Your task to perform on an android device: Open Amazon Image 0: 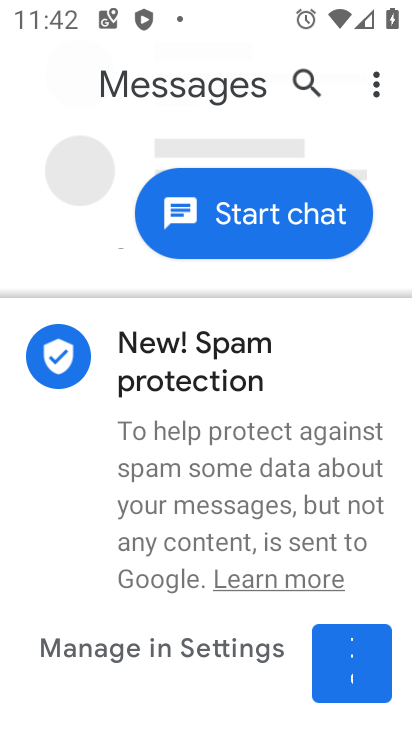
Step 0: press home button
Your task to perform on an android device: Open Amazon Image 1: 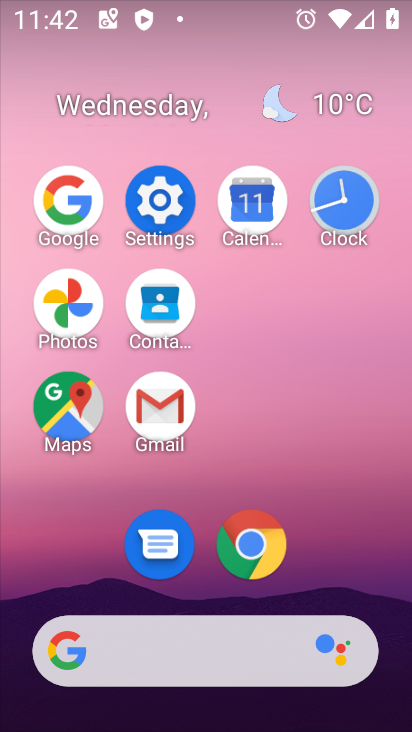
Step 1: click (251, 553)
Your task to perform on an android device: Open Amazon Image 2: 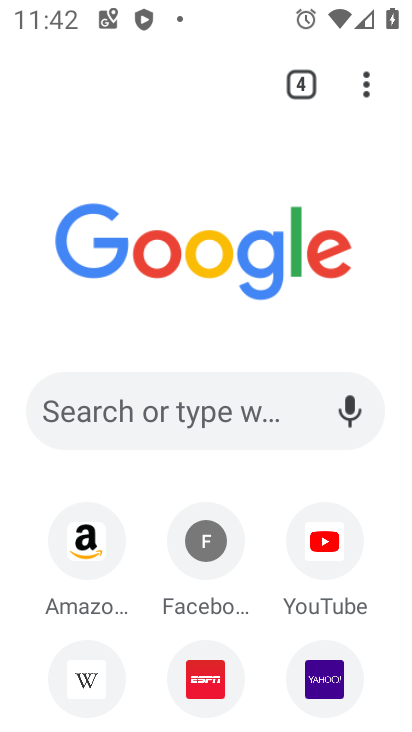
Step 2: click (90, 537)
Your task to perform on an android device: Open Amazon Image 3: 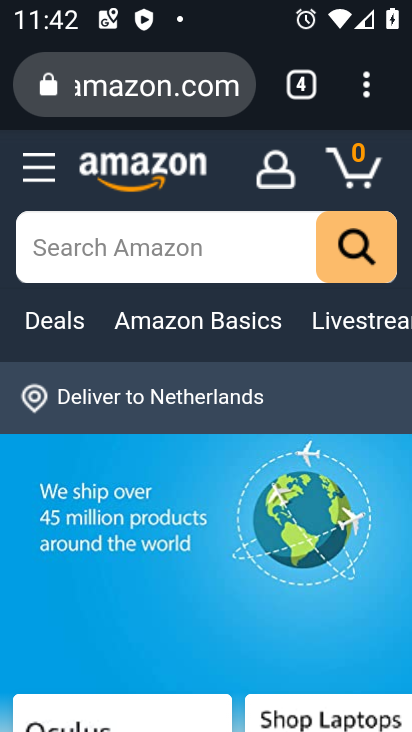
Step 3: task complete